Your task to perform on an android device: Show me popular videos on Youtube Image 0: 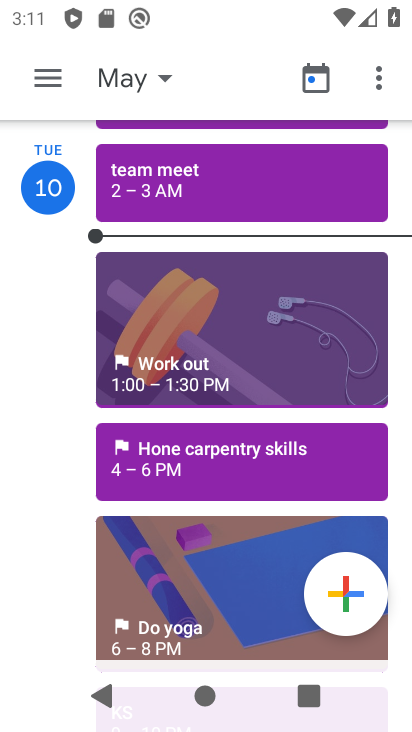
Step 0: drag from (212, 554) to (273, 174)
Your task to perform on an android device: Show me popular videos on Youtube Image 1: 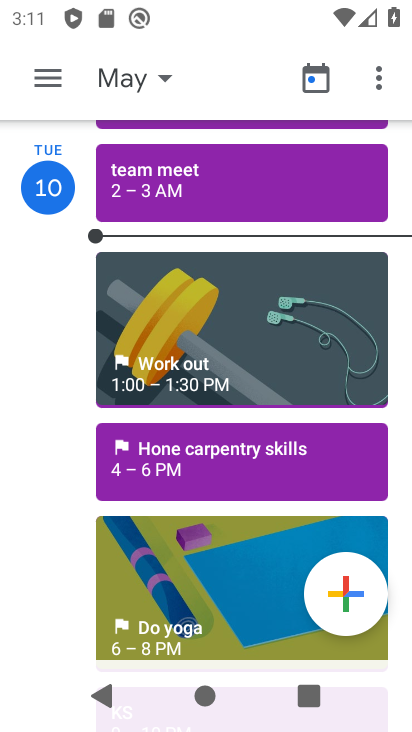
Step 1: press home button
Your task to perform on an android device: Show me popular videos on Youtube Image 2: 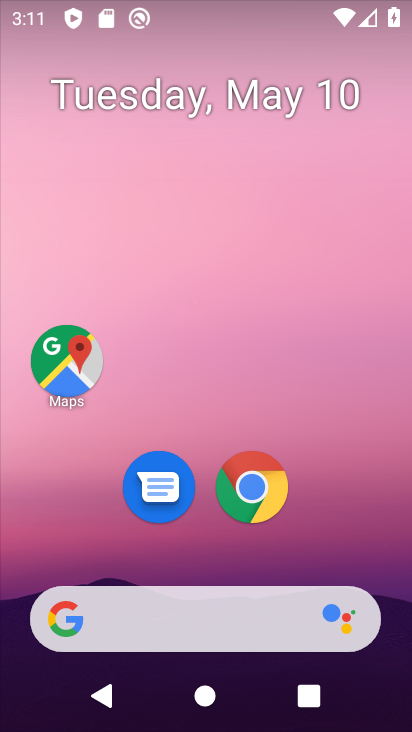
Step 2: drag from (209, 564) to (236, 131)
Your task to perform on an android device: Show me popular videos on Youtube Image 3: 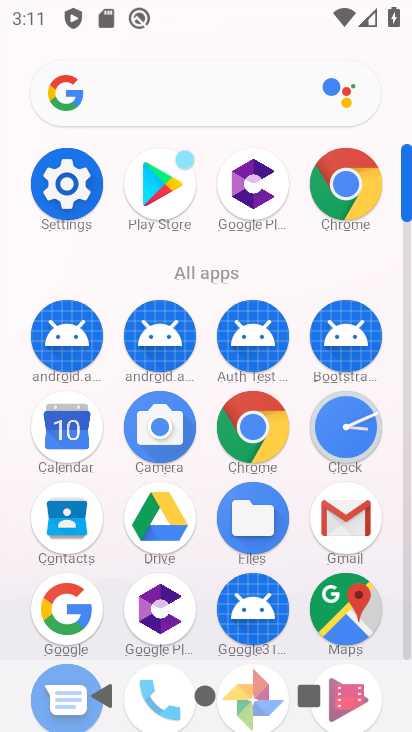
Step 3: drag from (206, 552) to (207, 149)
Your task to perform on an android device: Show me popular videos on Youtube Image 4: 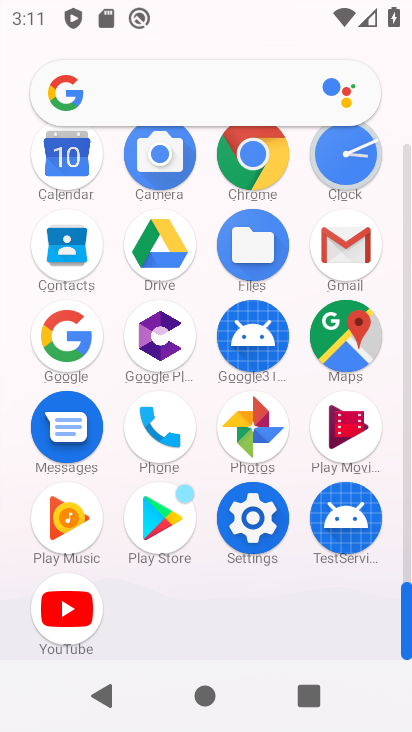
Step 4: click (62, 605)
Your task to perform on an android device: Show me popular videos on Youtube Image 5: 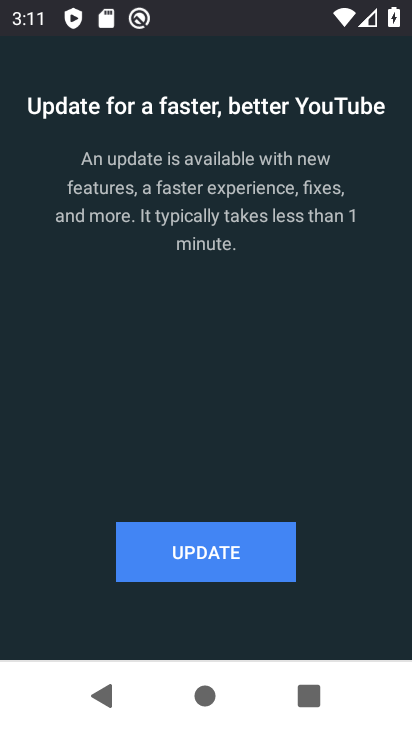
Step 5: click (200, 552)
Your task to perform on an android device: Show me popular videos on Youtube Image 6: 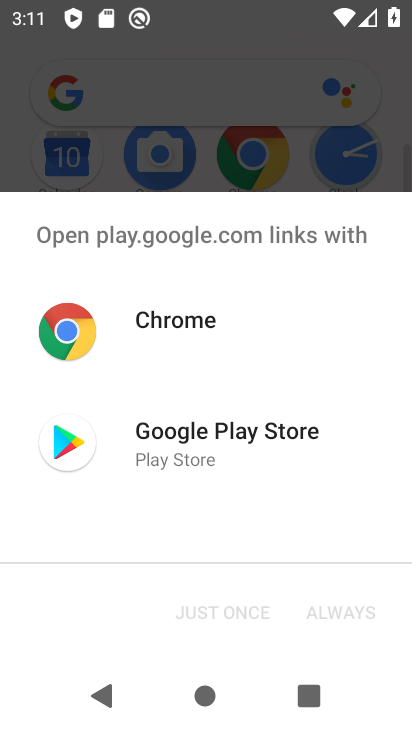
Step 6: click (126, 455)
Your task to perform on an android device: Show me popular videos on Youtube Image 7: 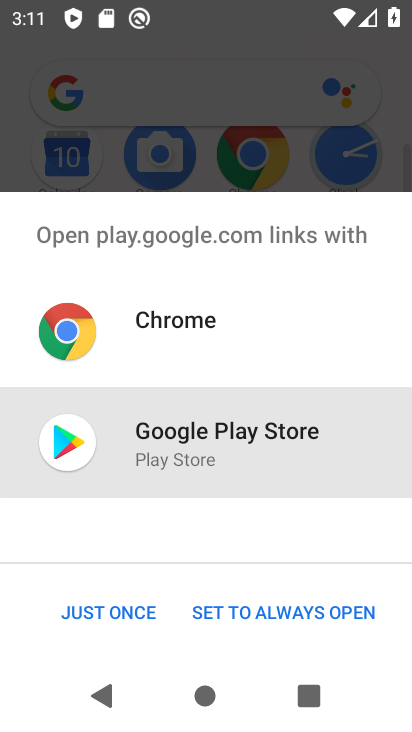
Step 7: click (123, 606)
Your task to perform on an android device: Show me popular videos on Youtube Image 8: 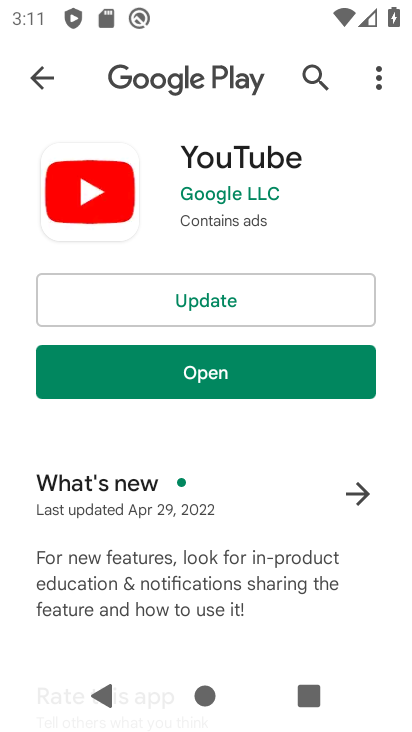
Step 8: click (218, 299)
Your task to perform on an android device: Show me popular videos on Youtube Image 9: 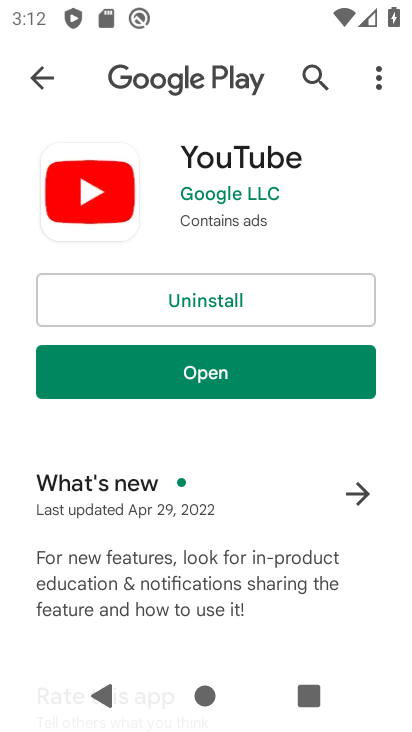
Step 9: click (211, 374)
Your task to perform on an android device: Show me popular videos on Youtube Image 10: 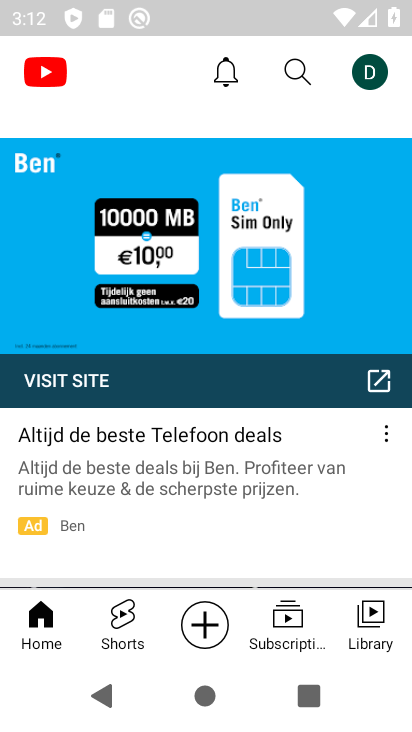
Step 10: drag from (100, 489) to (140, 104)
Your task to perform on an android device: Show me popular videos on Youtube Image 11: 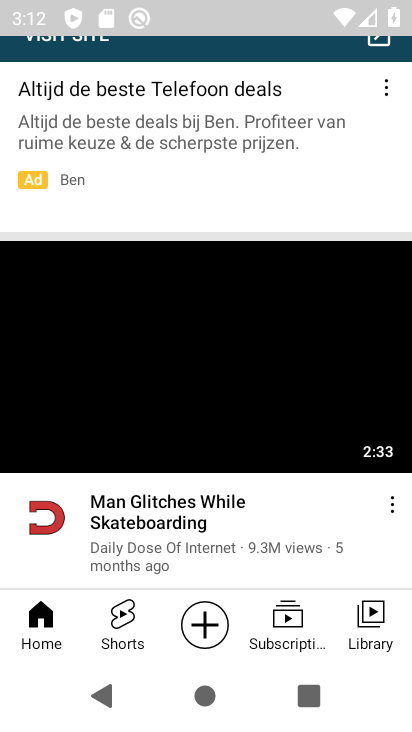
Step 11: drag from (87, 485) to (132, 75)
Your task to perform on an android device: Show me popular videos on Youtube Image 12: 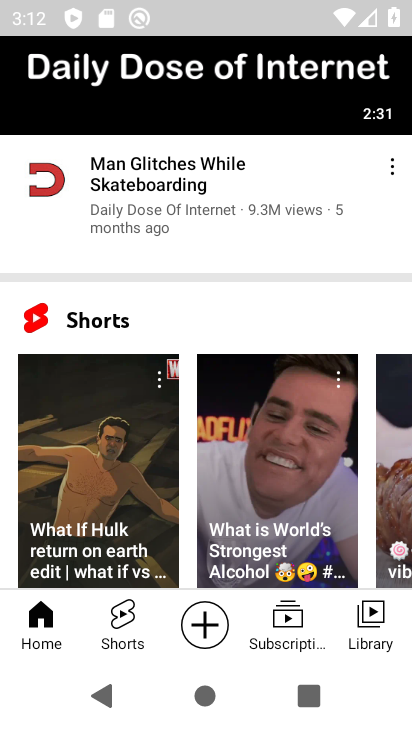
Step 12: drag from (162, 191) to (212, 615)
Your task to perform on an android device: Show me popular videos on Youtube Image 13: 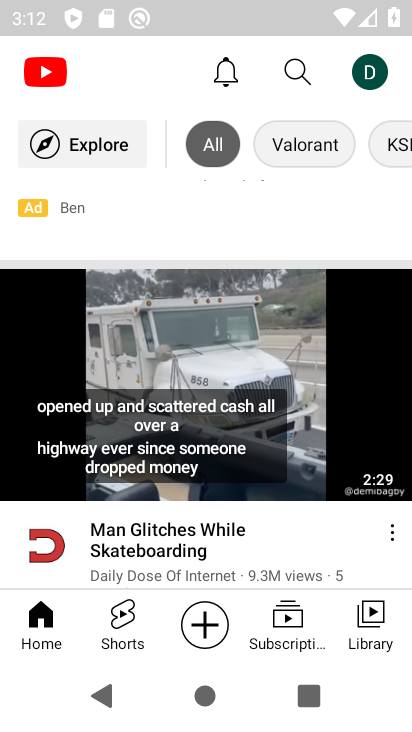
Step 13: click (65, 132)
Your task to perform on an android device: Show me popular videos on Youtube Image 14: 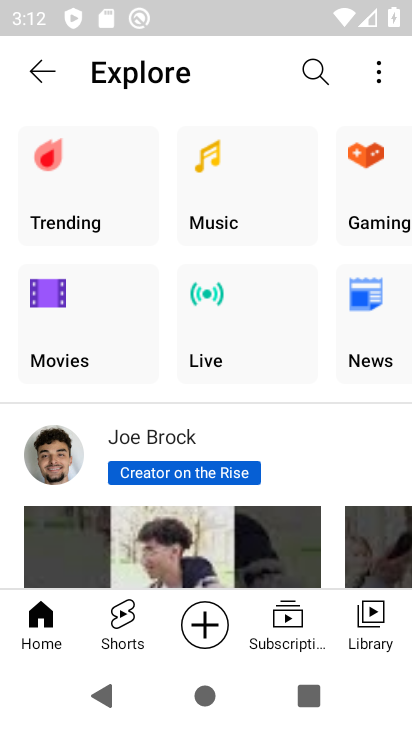
Step 14: click (79, 185)
Your task to perform on an android device: Show me popular videos on Youtube Image 15: 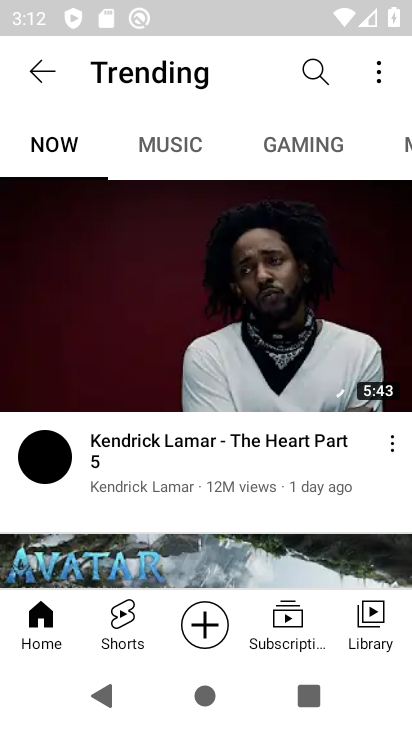
Step 15: task complete